Your task to perform on an android device: Open Youtube and go to the subscriptions tab Image 0: 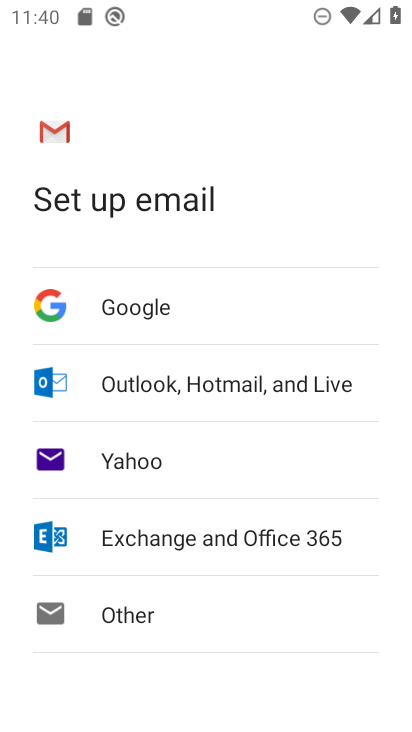
Step 0: press home button
Your task to perform on an android device: Open Youtube and go to the subscriptions tab Image 1: 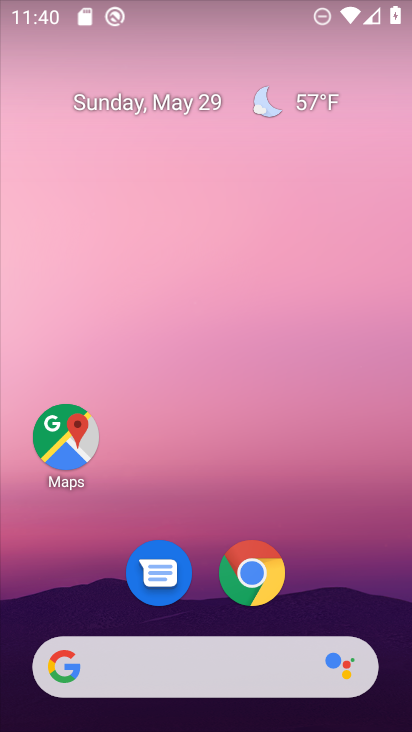
Step 1: drag from (205, 619) to (205, 53)
Your task to perform on an android device: Open Youtube and go to the subscriptions tab Image 2: 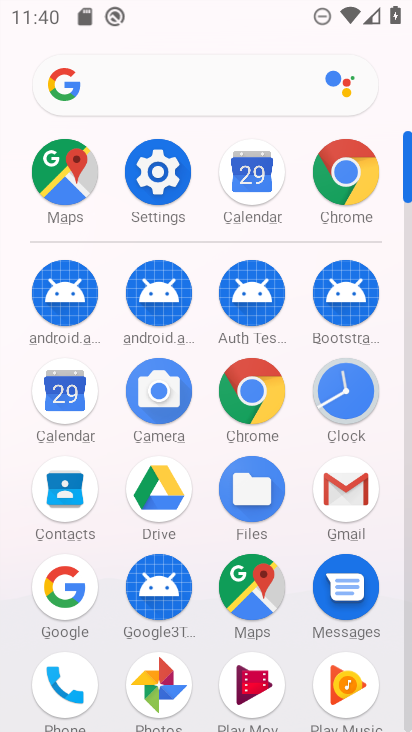
Step 2: click (268, 379)
Your task to perform on an android device: Open Youtube and go to the subscriptions tab Image 3: 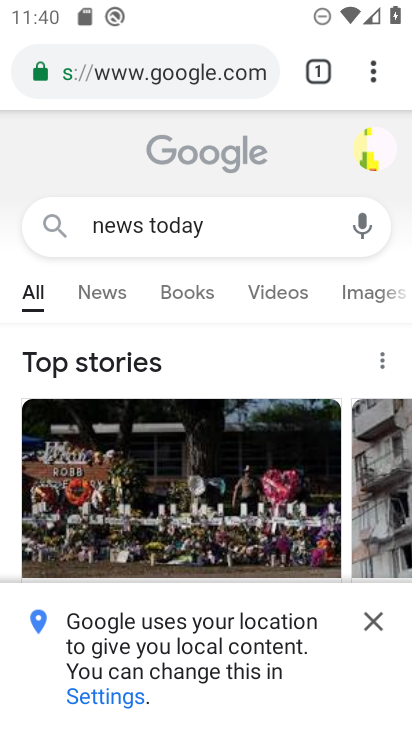
Step 3: press home button
Your task to perform on an android device: Open Youtube and go to the subscriptions tab Image 4: 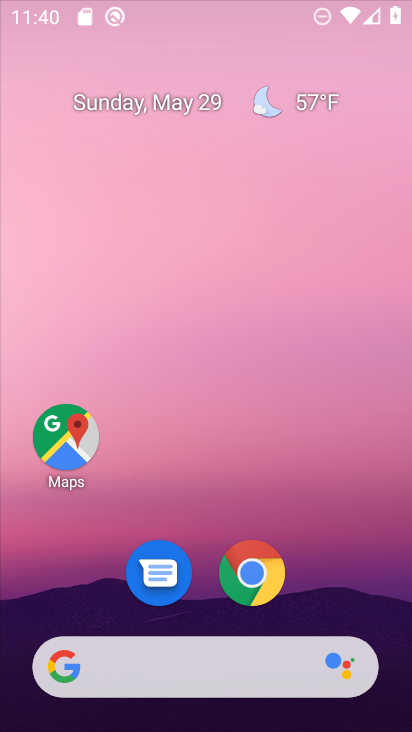
Step 4: drag from (343, 637) to (307, 155)
Your task to perform on an android device: Open Youtube and go to the subscriptions tab Image 5: 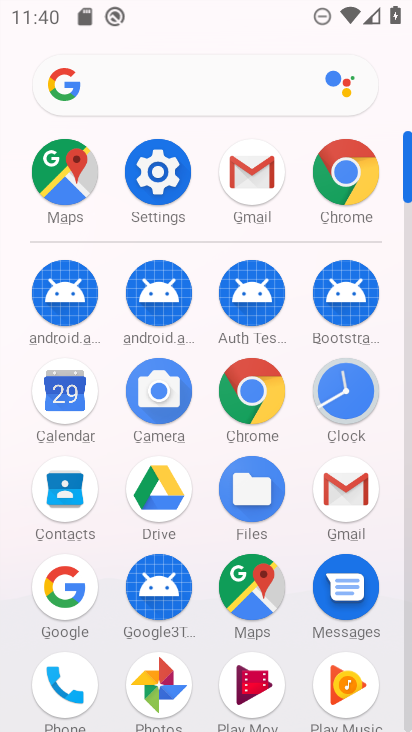
Step 5: drag from (294, 662) to (306, 317)
Your task to perform on an android device: Open Youtube and go to the subscriptions tab Image 6: 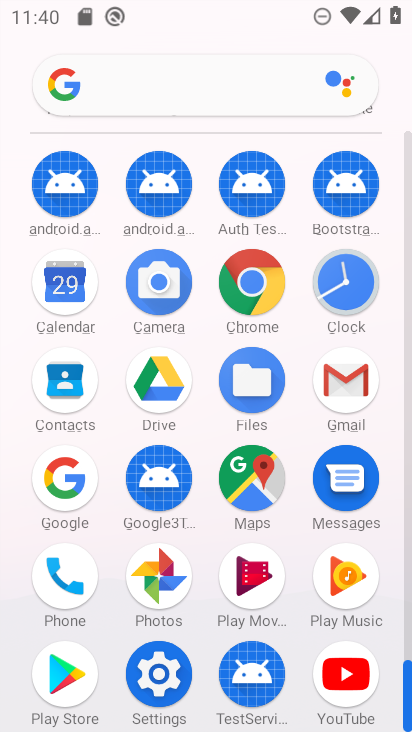
Step 6: click (348, 653)
Your task to perform on an android device: Open Youtube and go to the subscriptions tab Image 7: 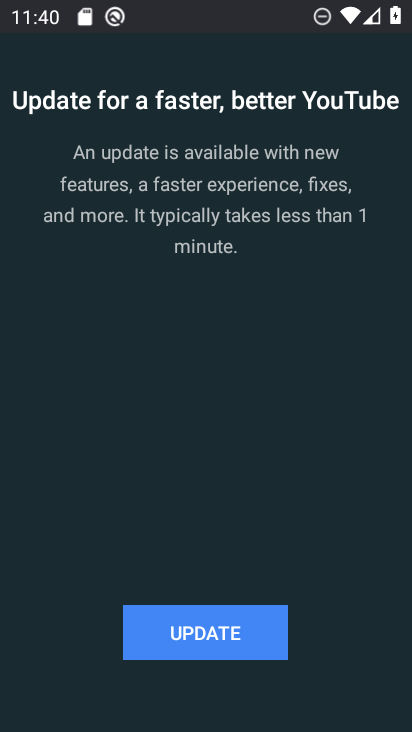
Step 7: click (153, 640)
Your task to perform on an android device: Open Youtube and go to the subscriptions tab Image 8: 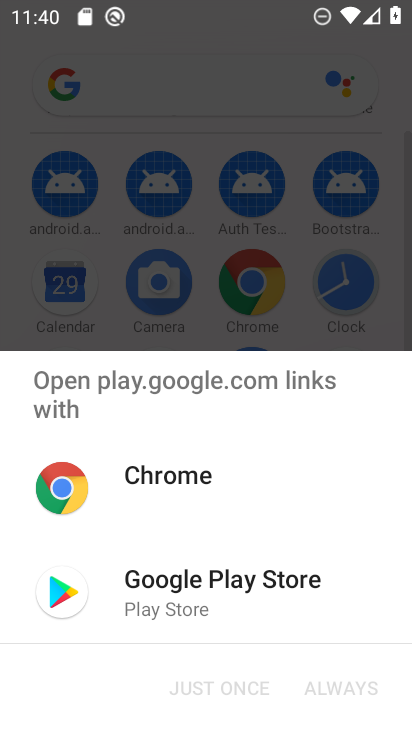
Step 8: click (185, 593)
Your task to perform on an android device: Open Youtube and go to the subscriptions tab Image 9: 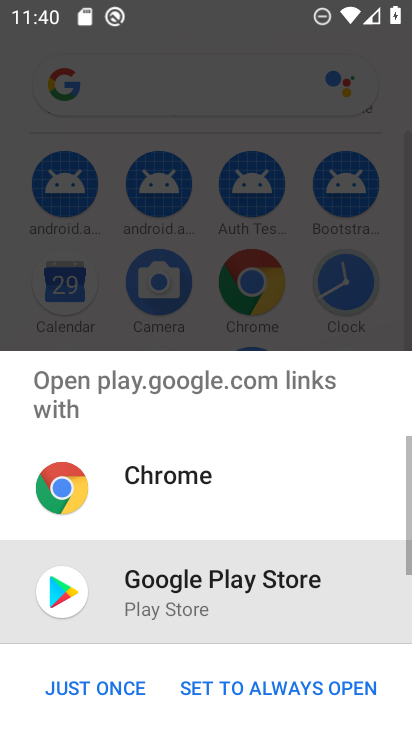
Step 9: click (120, 683)
Your task to perform on an android device: Open Youtube and go to the subscriptions tab Image 10: 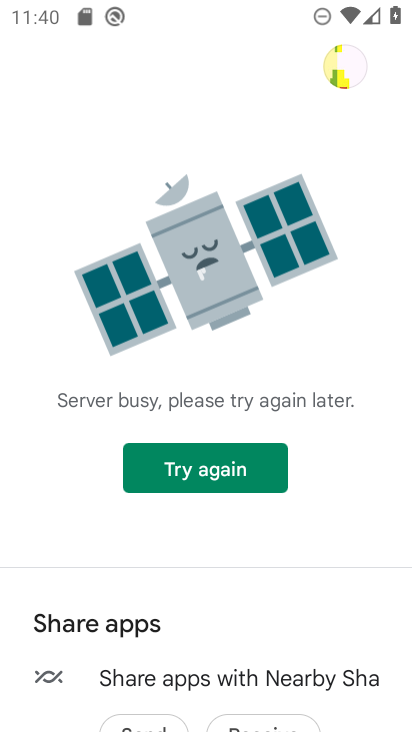
Step 10: click (247, 475)
Your task to perform on an android device: Open Youtube and go to the subscriptions tab Image 11: 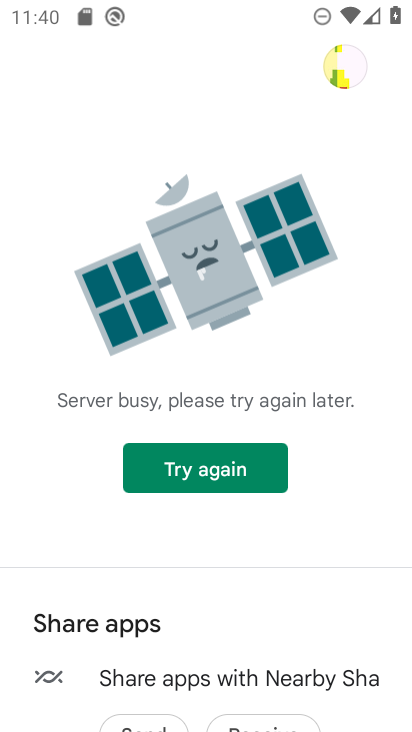
Step 11: click (243, 479)
Your task to perform on an android device: Open Youtube and go to the subscriptions tab Image 12: 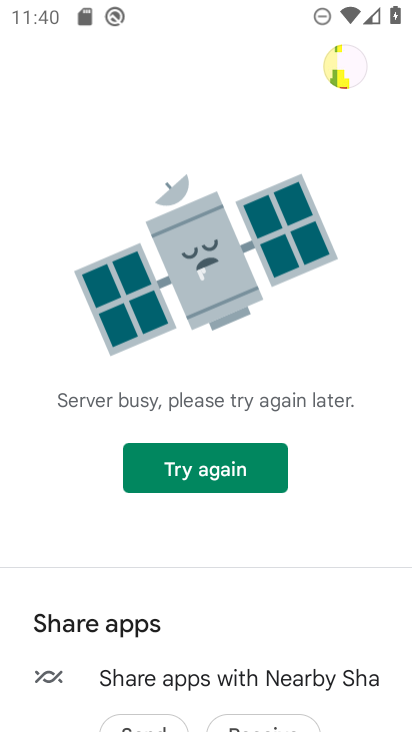
Step 12: task complete